Your task to perform on an android device: Go to location settings Image 0: 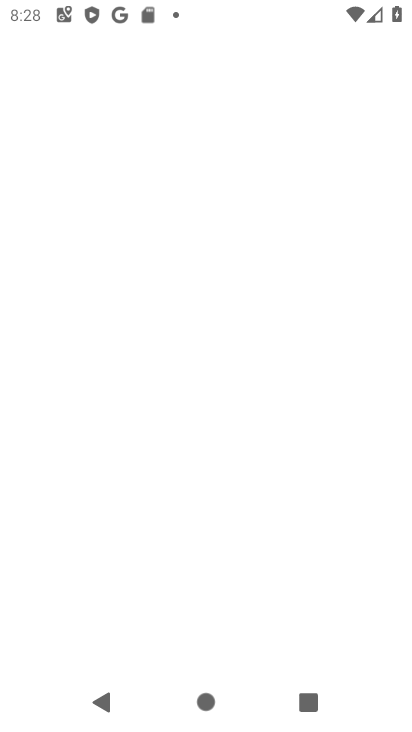
Step 0: press home button
Your task to perform on an android device: Go to location settings Image 1: 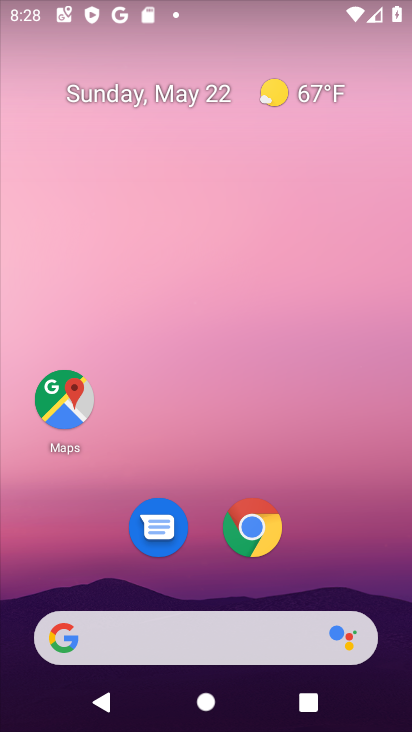
Step 1: drag from (210, 577) to (205, 56)
Your task to perform on an android device: Go to location settings Image 2: 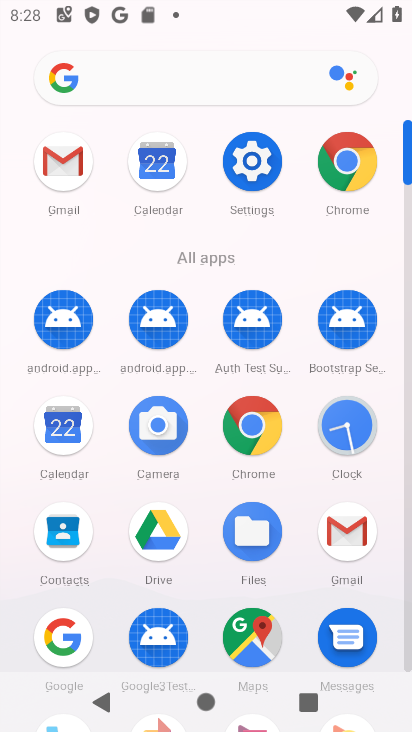
Step 2: click (247, 156)
Your task to perform on an android device: Go to location settings Image 3: 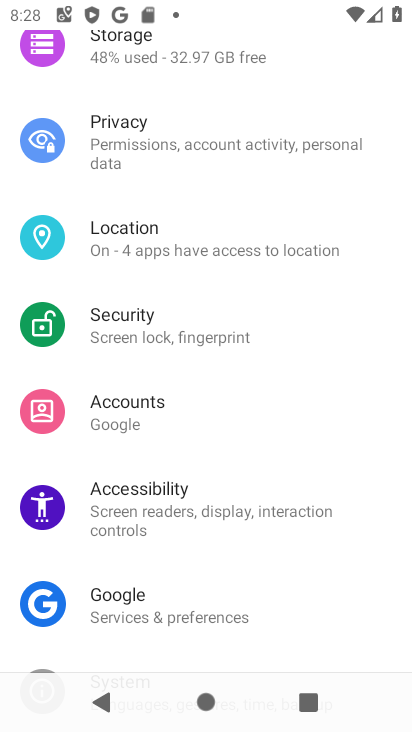
Step 3: click (177, 227)
Your task to perform on an android device: Go to location settings Image 4: 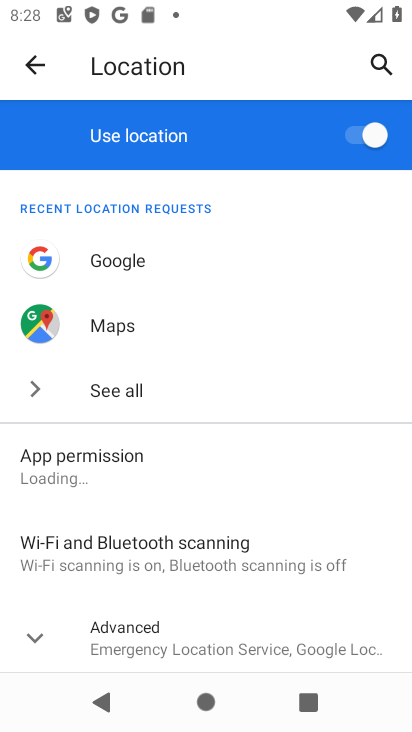
Step 4: click (31, 636)
Your task to perform on an android device: Go to location settings Image 5: 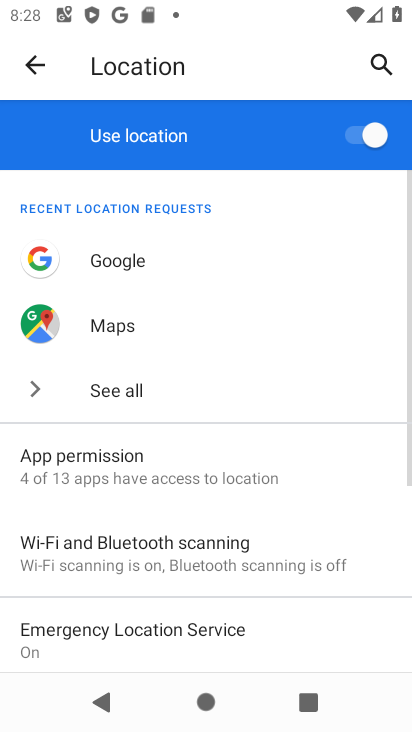
Step 5: task complete